Your task to perform on an android device: see sites visited before in the chrome app Image 0: 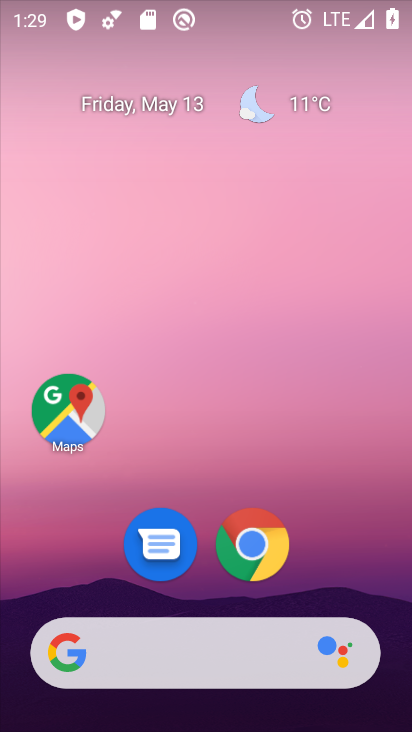
Step 0: click (252, 543)
Your task to perform on an android device: see sites visited before in the chrome app Image 1: 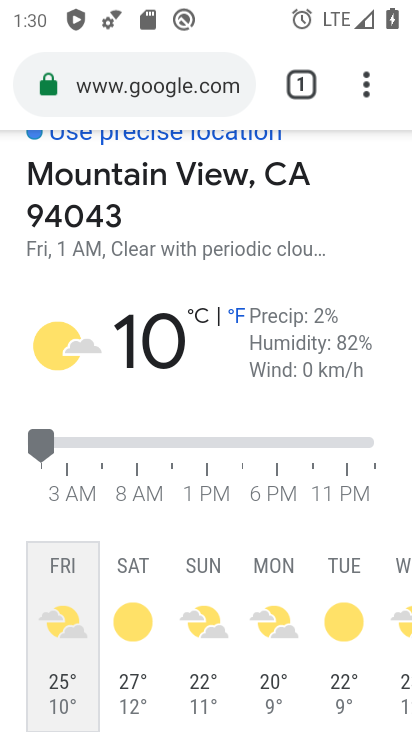
Step 1: click (370, 86)
Your task to perform on an android device: see sites visited before in the chrome app Image 2: 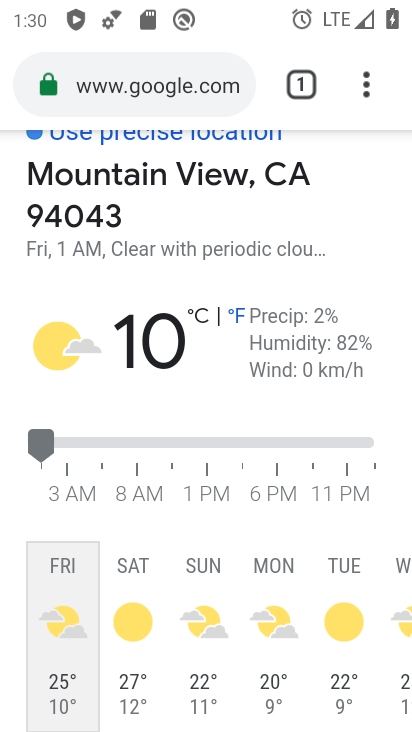
Step 2: click (365, 91)
Your task to perform on an android device: see sites visited before in the chrome app Image 3: 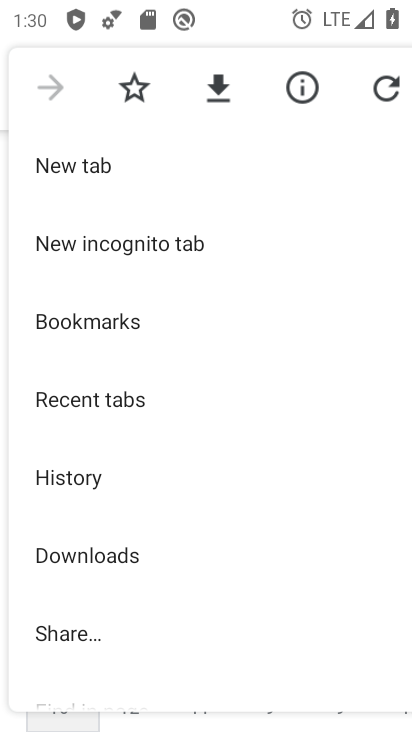
Step 3: click (80, 390)
Your task to perform on an android device: see sites visited before in the chrome app Image 4: 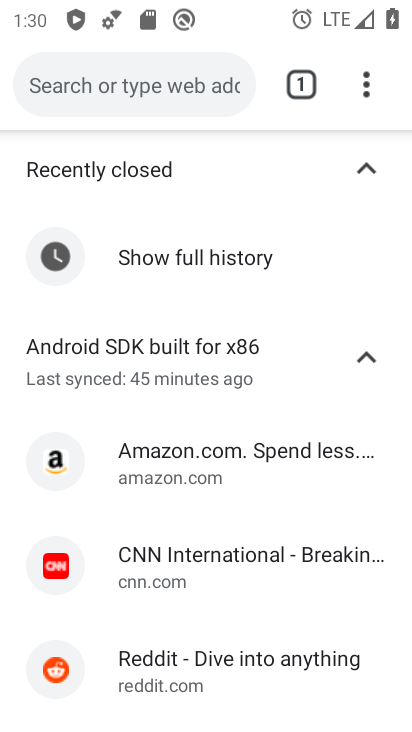
Step 4: task complete